Your task to perform on an android device: Clear the shopping cart on walmart. Add "amazon basics triple a" to the cart on walmart Image 0: 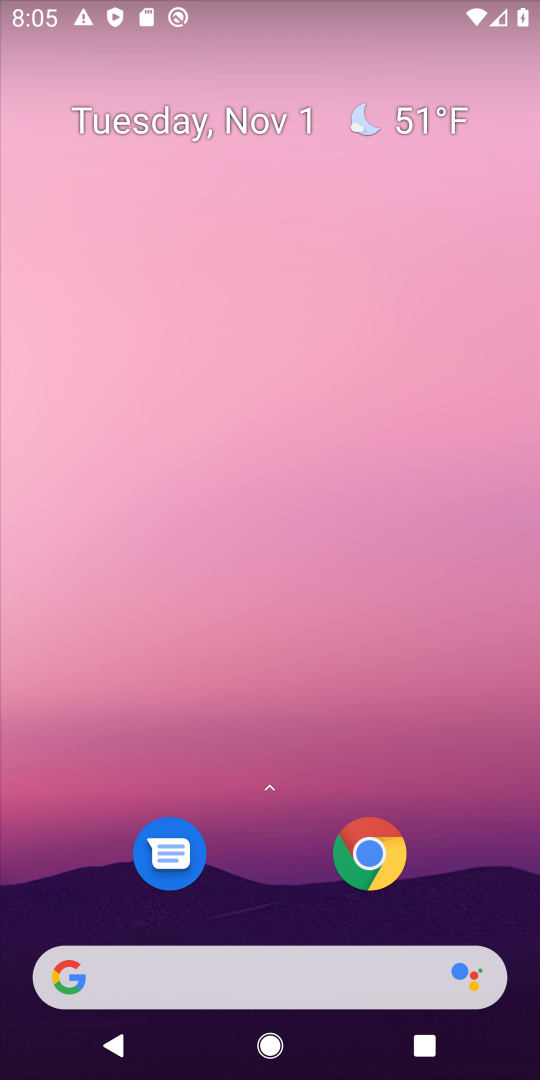
Step 0: click (204, 977)
Your task to perform on an android device: Clear the shopping cart on walmart. Add "amazon basics triple a" to the cart on walmart Image 1: 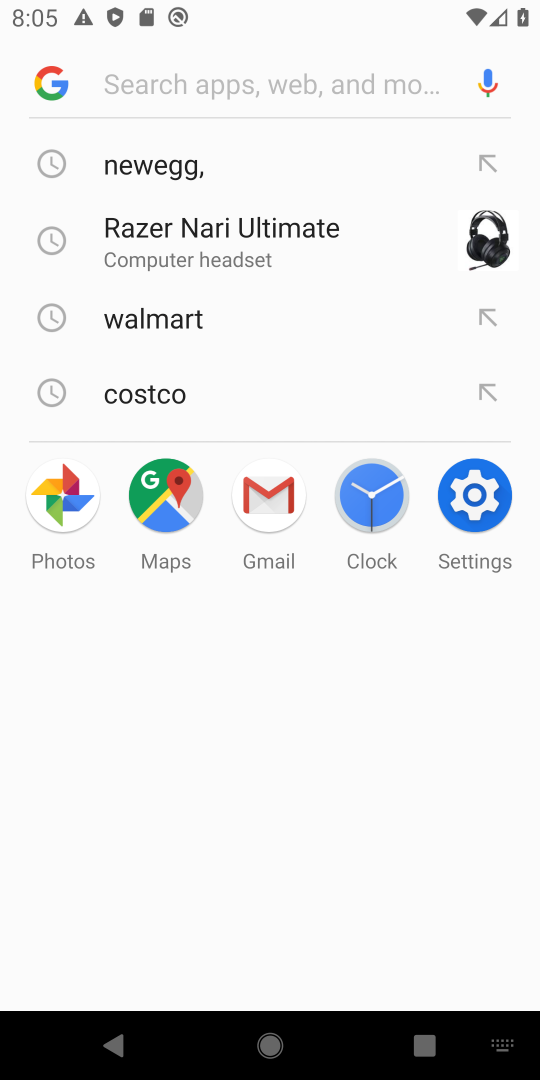
Step 1: type "amazon"
Your task to perform on an android device: Clear the shopping cart on walmart. Add "amazon basics triple a" to the cart on walmart Image 2: 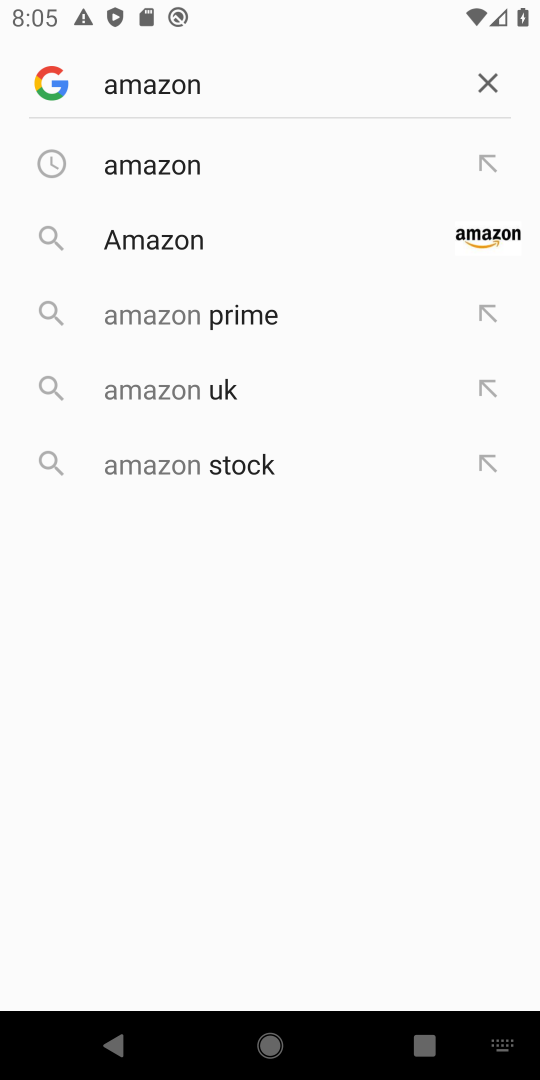
Step 2: click (223, 182)
Your task to perform on an android device: Clear the shopping cart on walmart. Add "amazon basics triple a" to the cart on walmart Image 3: 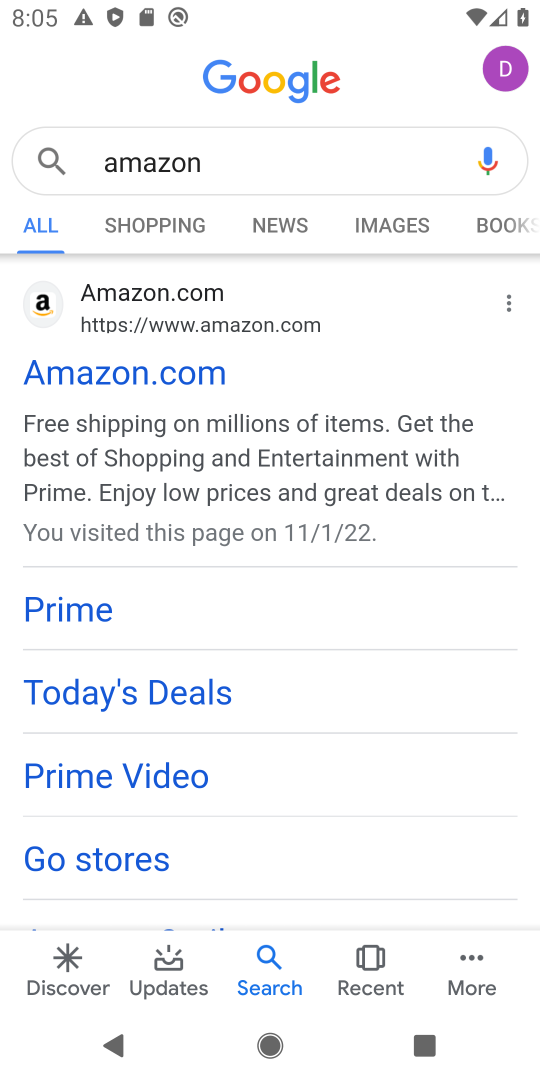
Step 3: click (158, 367)
Your task to perform on an android device: Clear the shopping cart on walmart. Add "amazon basics triple a" to the cart on walmart Image 4: 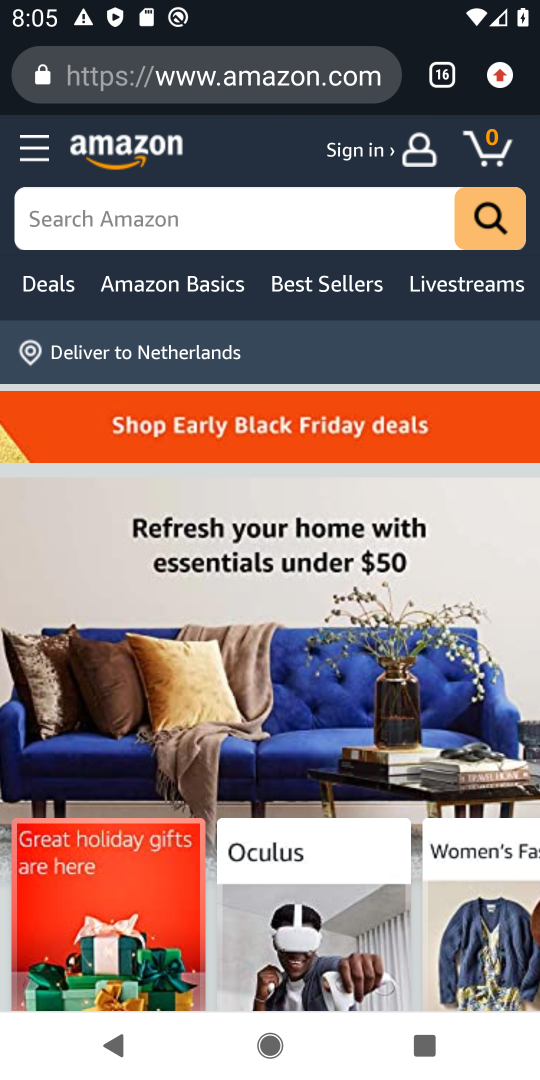
Step 4: click (306, 224)
Your task to perform on an android device: Clear the shopping cart on walmart. Add "amazon basics triple a" to the cart on walmart Image 5: 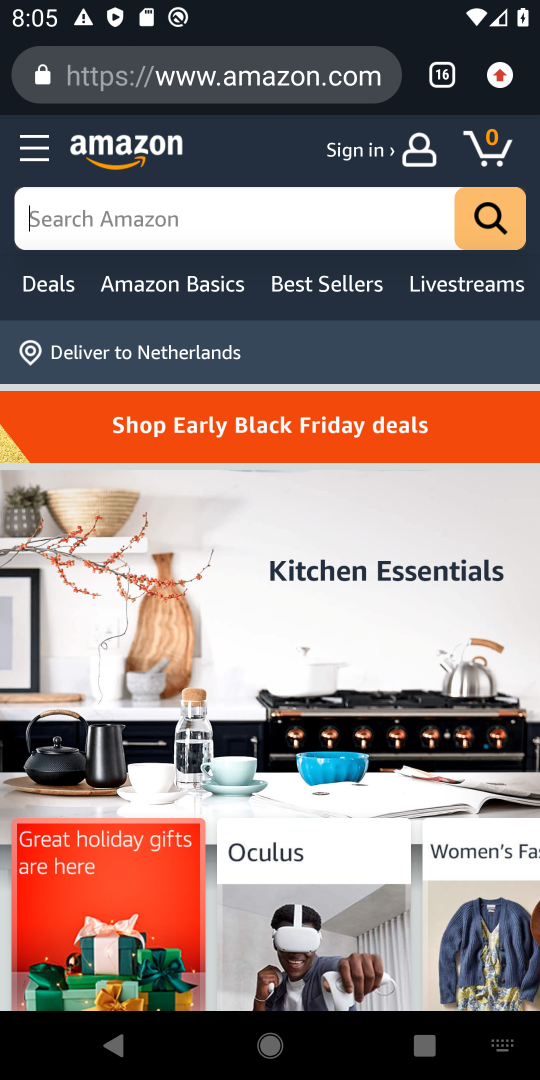
Step 5: type "triple A"
Your task to perform on an android device: Clear the shopping cart on walmart. Add "amazon basics triple a" to the cart on walmart Image 6: 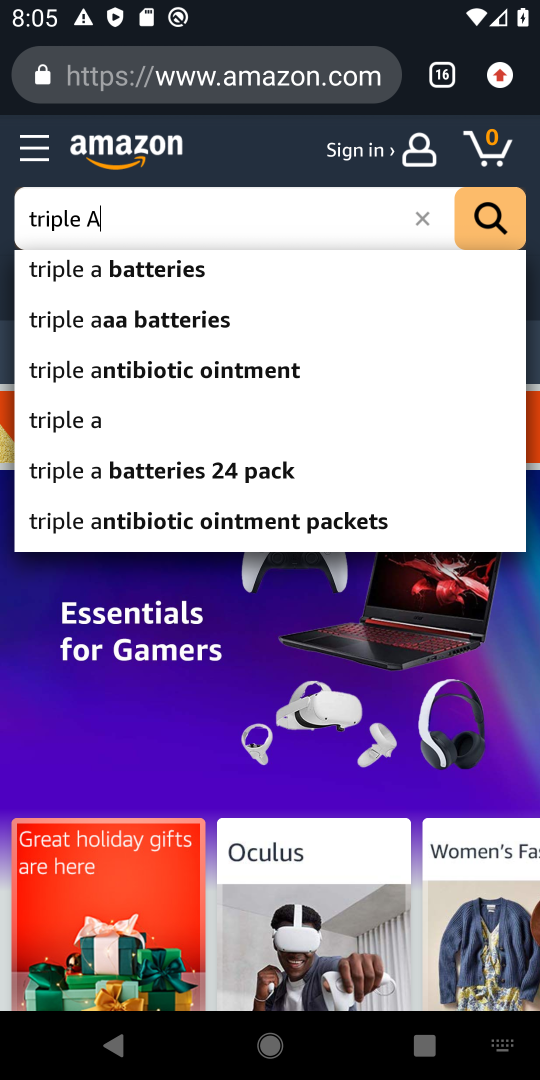
Step 6: click (238, 286)
Your task to perform on an android device: Clear the shopping cart on walmart. Add "amazon basics triple a" to the cart on walmart Image 7: 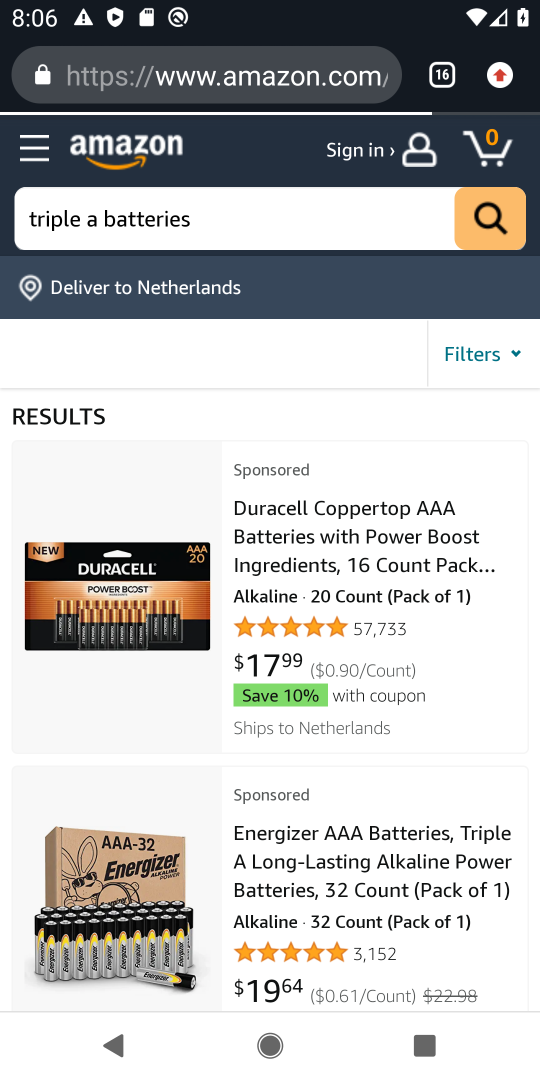
Step 7: click (311, 611)
Your task to perform on an android device: Clear the shopping cart on walmart. Add "amazon basics triple a" to the cart on walmart Image 8: 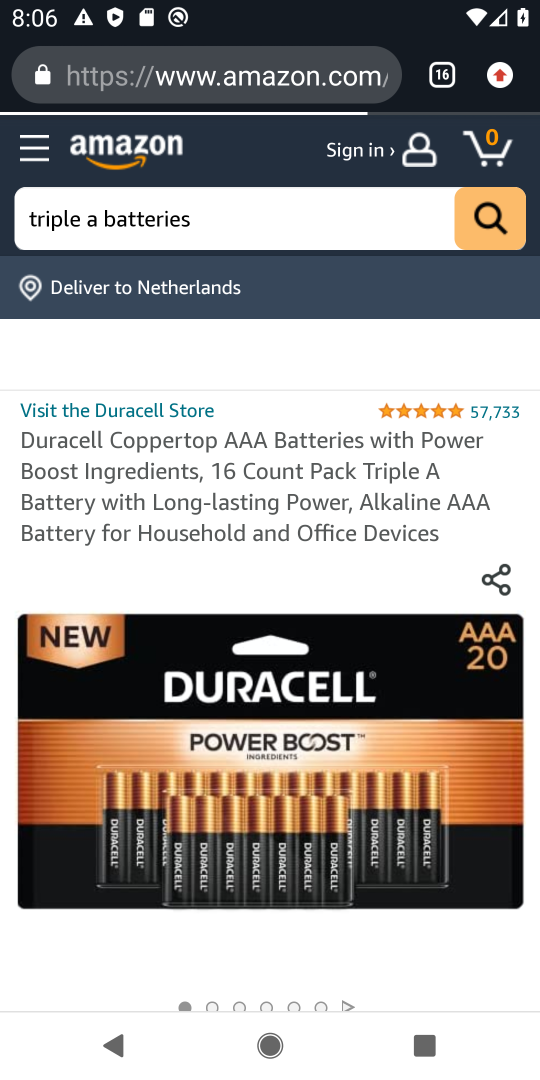
Step 8: drag from (285, 855) to (272, 550)
Your task to perform on an android device: Clear the shopping cart on walmart. Add "amazon basics triple a" to the cart on walmart Image 9: 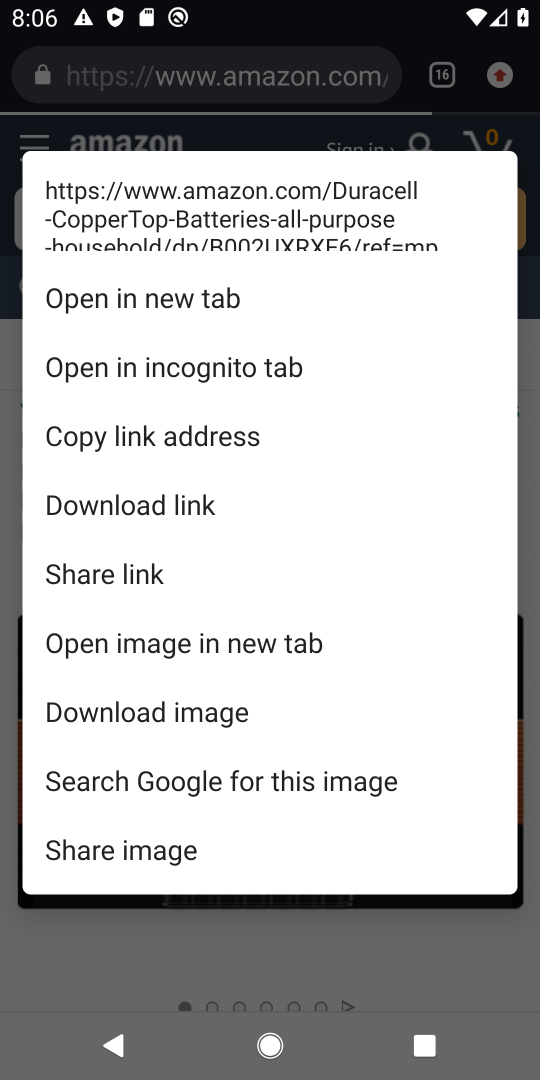
Step 9: click (207, 942)
Your task to perform on an android device: Clear the shopping cart on walmart. Add "amazon basics triple a" to the cart on walmart Image 10: 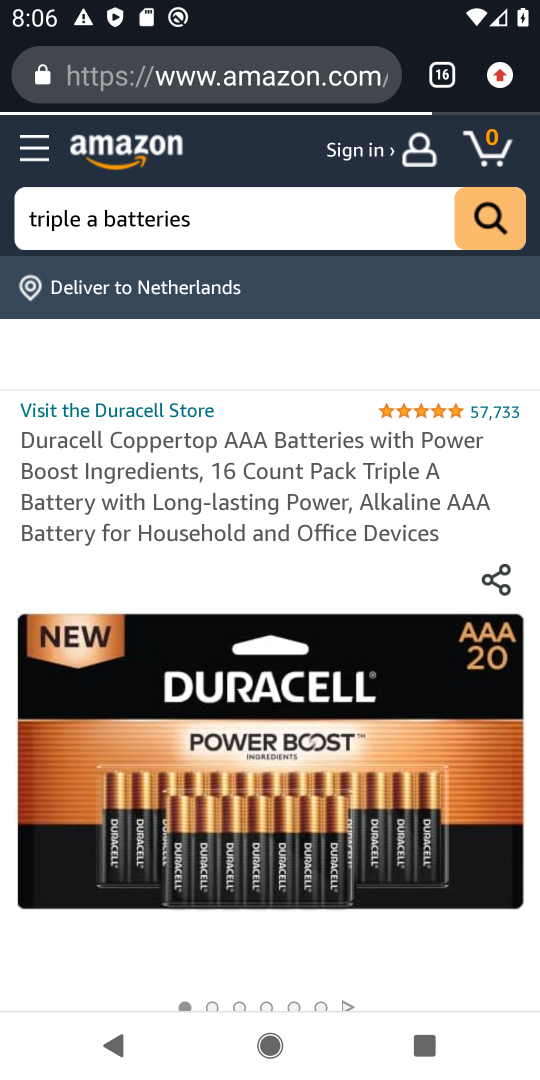
Step 10: drag from (207, 942) to (200, 546)
Your task to perform on an android device: Clear the shopping cart on walmart. Add "amazon basics triple a" to the cart on walmart Image 11: 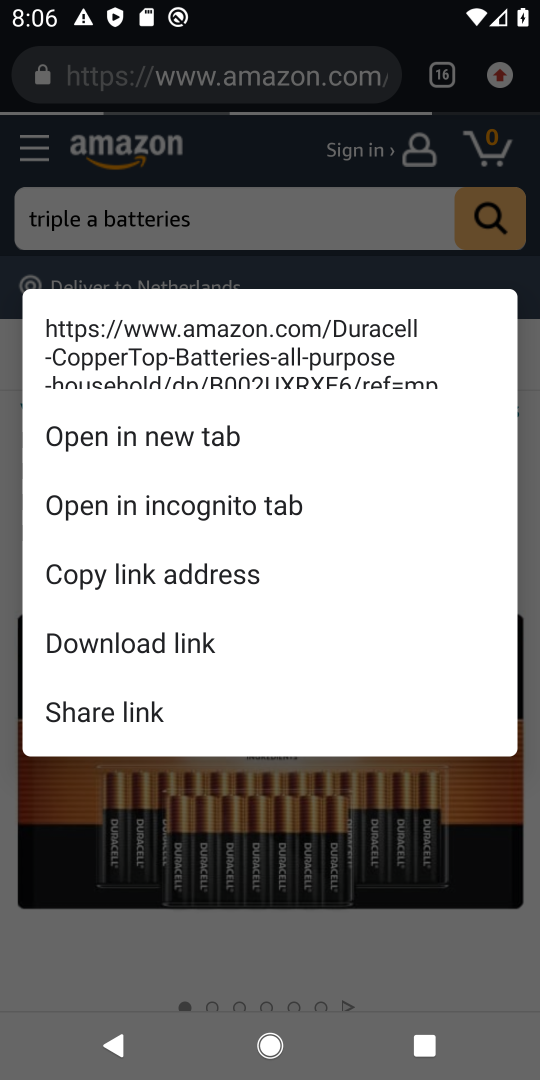
Step 11: click (177, 800)
Your task to perform on an android device: Clear the shopping cart on walmart. Add "amazon basics triple a" to the cart on walmart Image 12: 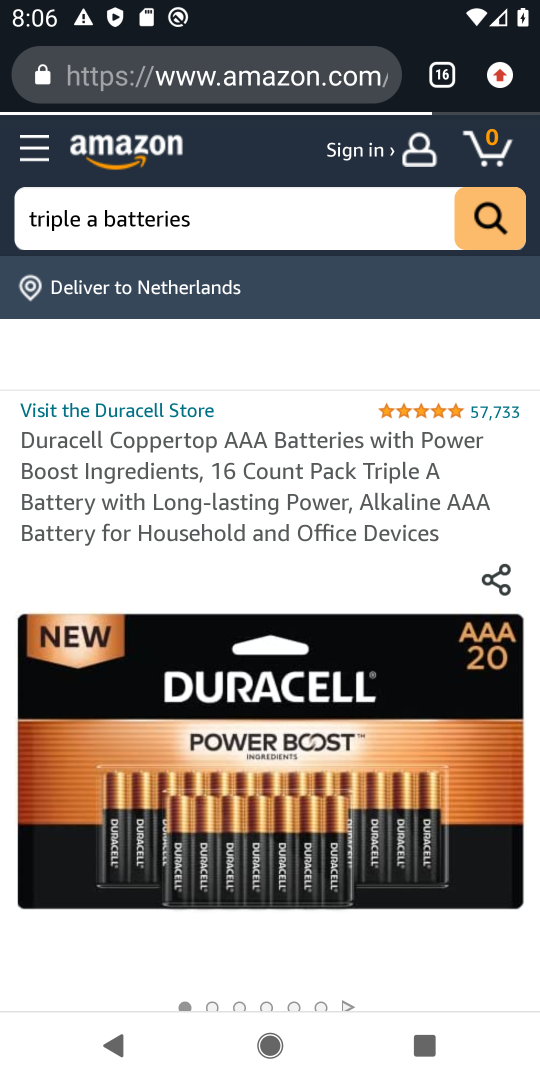
Step 12: drag from (226, 935) to (224, 511)
Your task to perform on an android device: Clear the shopping cart on walmart. Add "amazon basics triple a" to the cart on walmart Image 13: 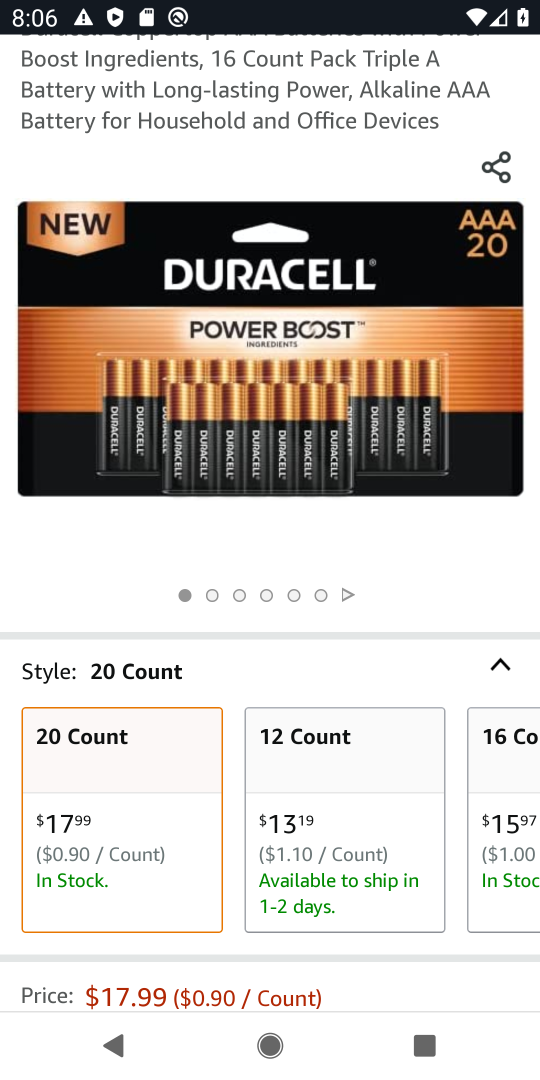
Step 13: drag from (227, 960) to (232, 451)
Your task to perform on an android device: Clear the shopping cart on walmart. Add "amazon basics triple a" to the cart on walmart Image 14: 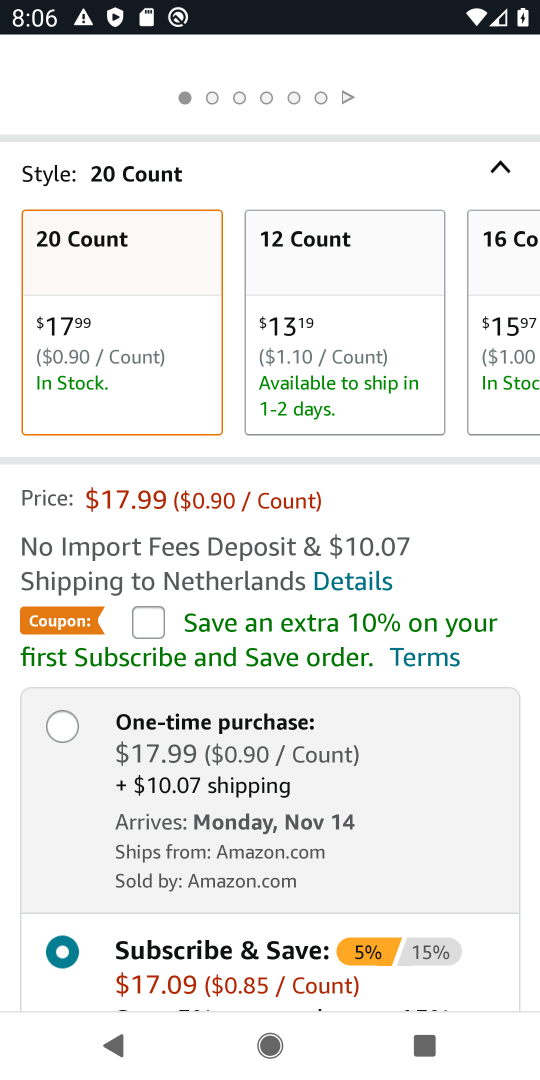
Step 14: drag from (330, 916) to (334, 456)
Your task to perform on an android device: Clear the shopping cart on walmart. Add "amazon basics triple a" to the cart on walmart Image 15: 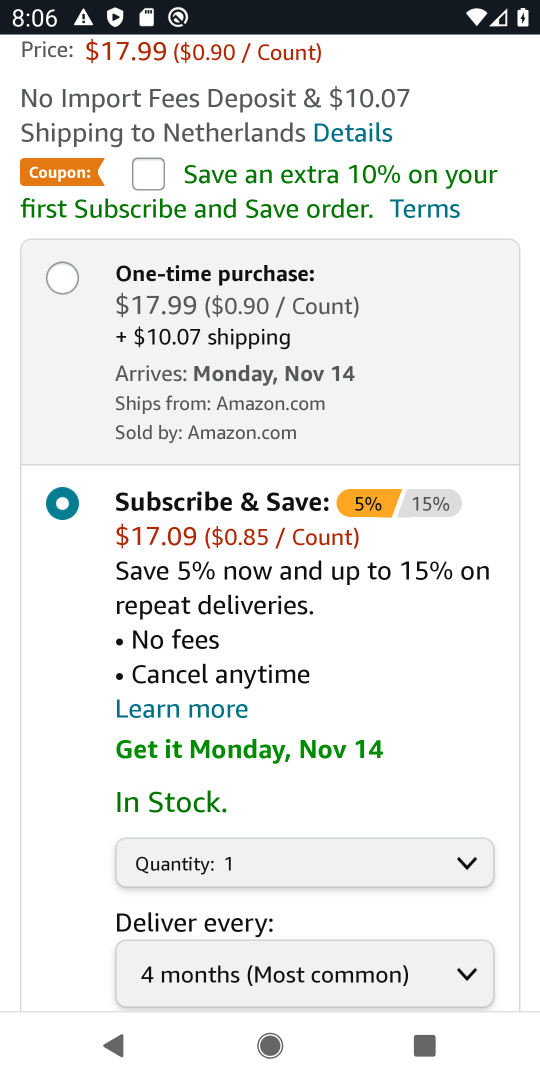
Step 15: drag from (305, 923) to (306, 278)
Your task to perform on an android device: Clear the shopping cart on walmart. Add "amazon basics triple a" to the cart on walmart Image 16: 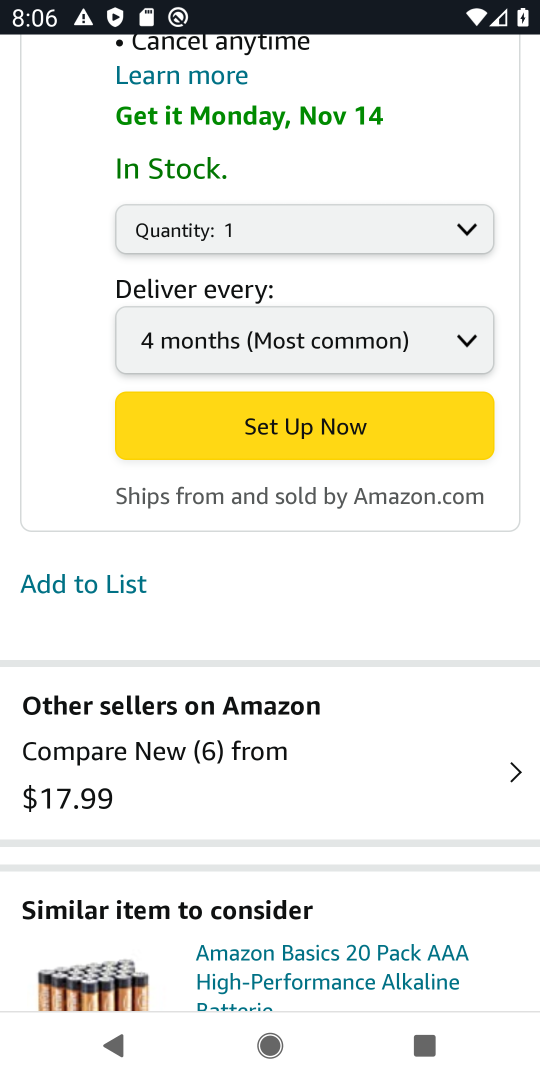
Step 16: click (365, 456)
Your task to perform on an android device: Clear the shopping cart on walmart. Add "amazon basics triple a" to the cart on walmart Image 17: 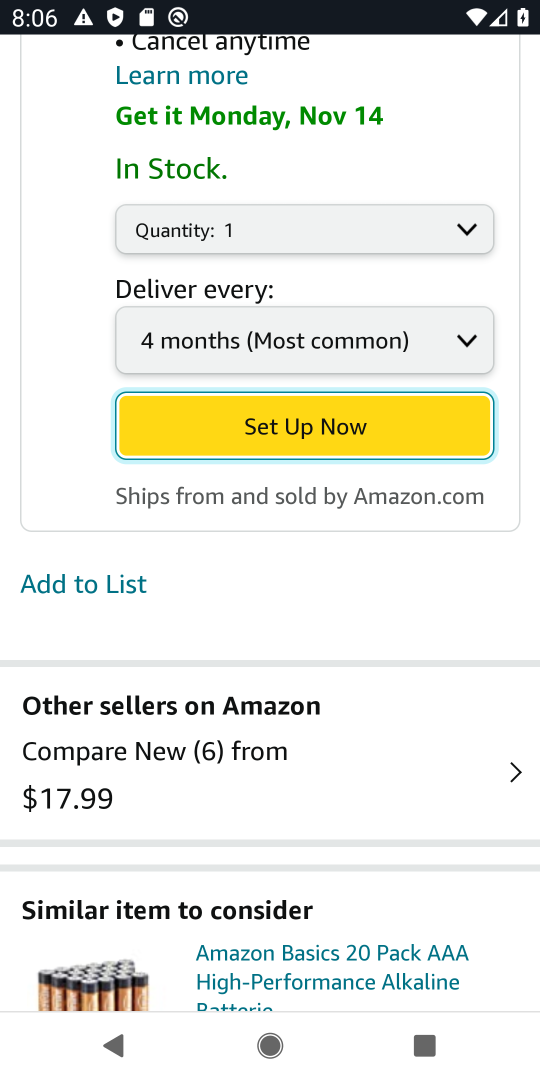
Step 17: task complete